Your task to perform on an android device: Search for Mexican restaurants on Maps Image 0: 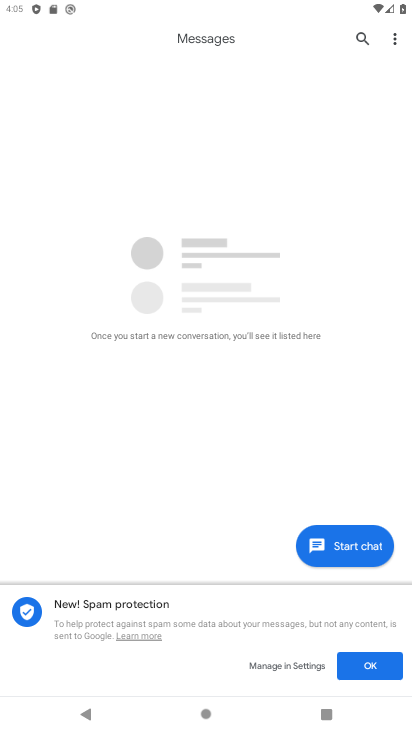
Step 0: press home button
Your task to perform on an android device: Search for Mexican restaurants on Maps Image 1: 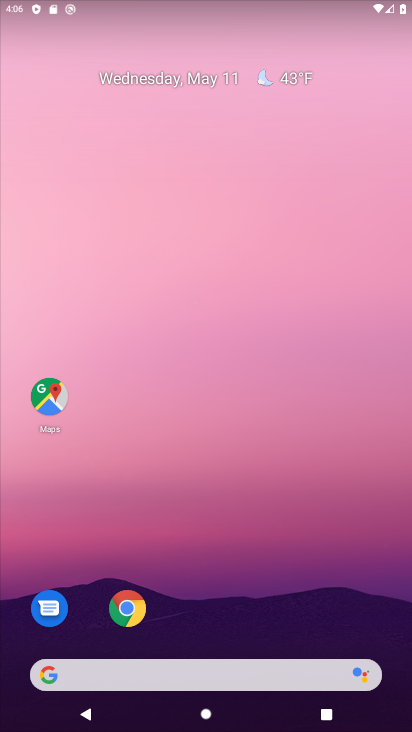
Step 1: drag from (227, 729) to (285, 207)
Your task to perform on an android device: Search for Mexican restaurants on Maps Image 2: 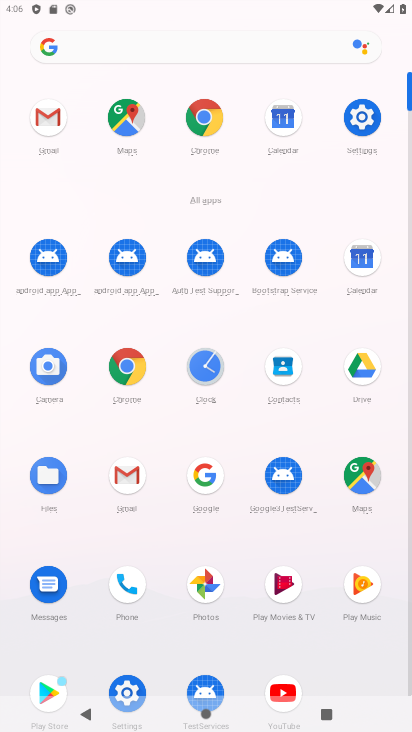
Step 2: click (366, 478)
Your task to perform on an android device: Search for Mexican restaurants on Maps Image 3: 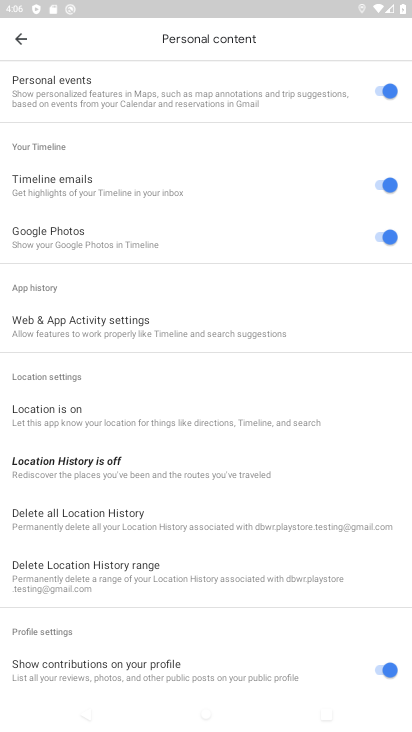
Step 3: click (18, 38)
Your task to perform on an android device: Search for Mexican restaurants on Maps Image 4: 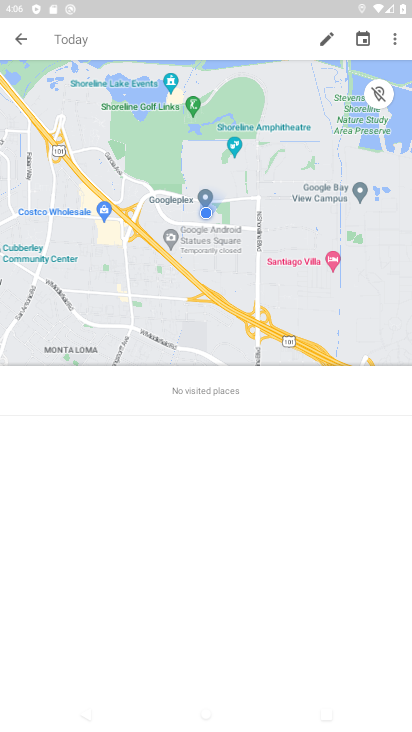
Step 4: click (16, 39)
Your task to perform on an android device: Search for Mexican restaurants on Maps Image 5: 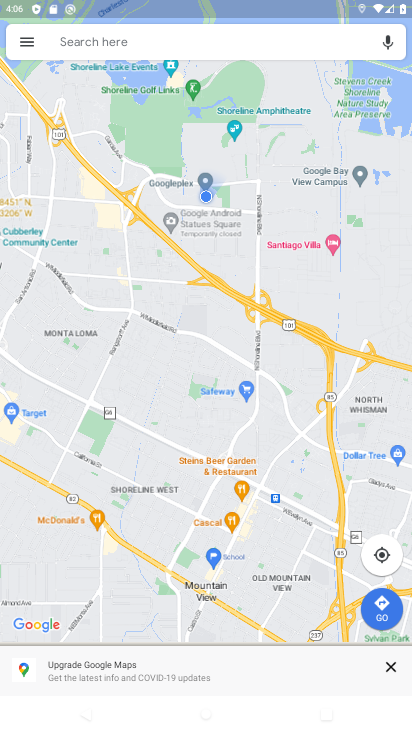
Step 5: click (164, 43)
Your task to perform on an android device: Search for Mexican restaurants on Maps Image 6: 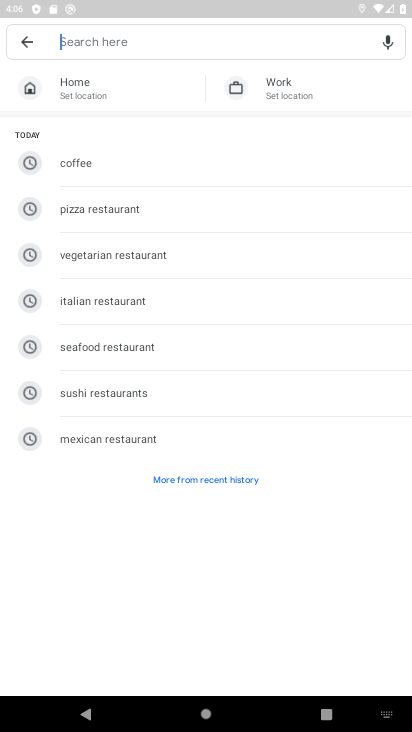
Step 6: type "Mexican restaurants"
Your task to perform on an android device: Search for Mexican restaurants on Maps Image 7: 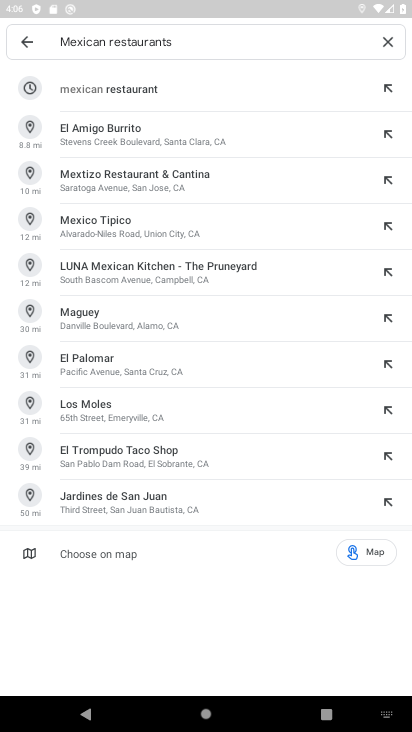
Step 7: click (99, 92)
Your task to perform on an android device: Search for Mexican restaurants on Maps Image 8: 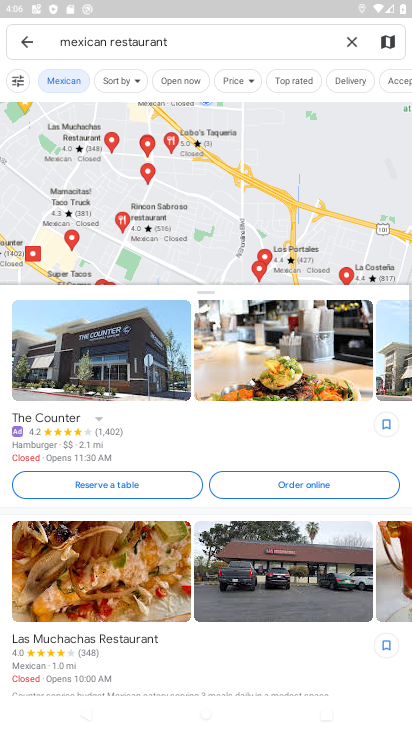
Step 8: task complete